Your task to perform on an android device: Search for sushi restaurants on Maps Image 0: 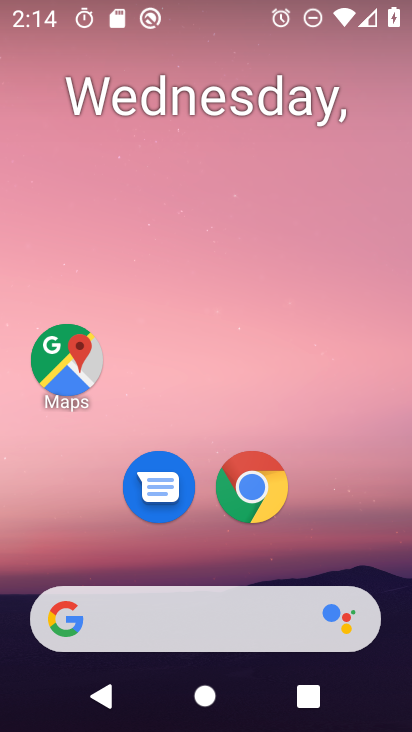
Step 0: click (62, 360)
Your task to perform on an android device: Search for sushi restaurants on Maps Image 1: 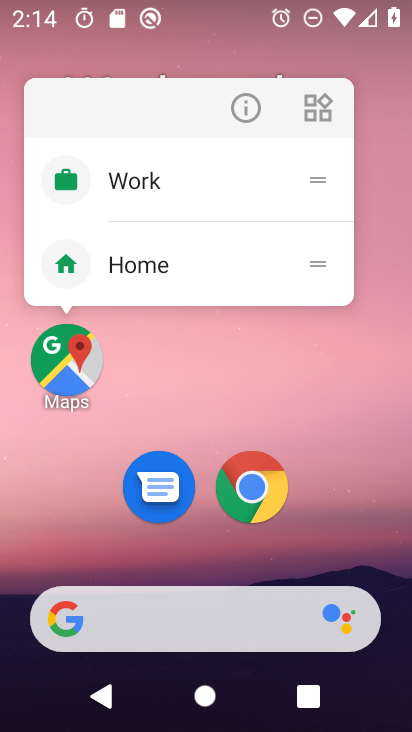
Step 1: click (65, 365)
Your task to perform on an android device: Search for sushi restaurants on Maps Image 2: 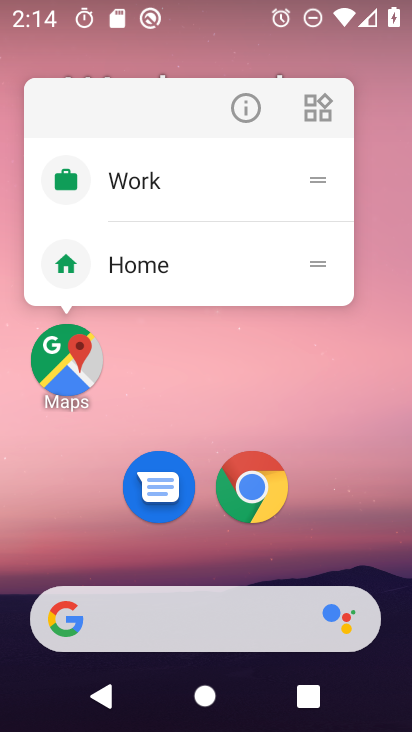
Step 2: click (58, 362)
Your task to perform on an android device: Search for sushi restaurants on Maps Image 3: 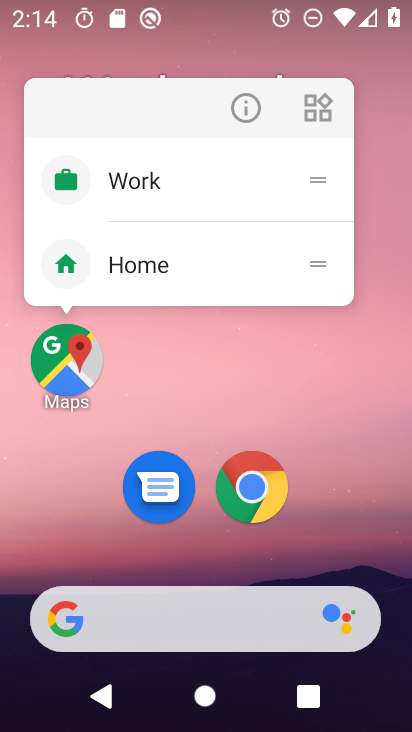
Step 3: click (71, 364)
Your task to perform on an android device: Search for sushi restaurants on Maps Image 4: 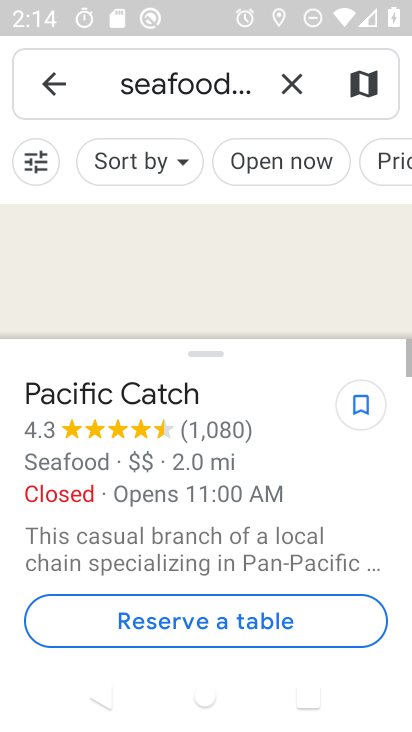
Step 4: click (293, 80)
Your task to perform on an android device: Search for sushi restaurants on Maps Image 5: 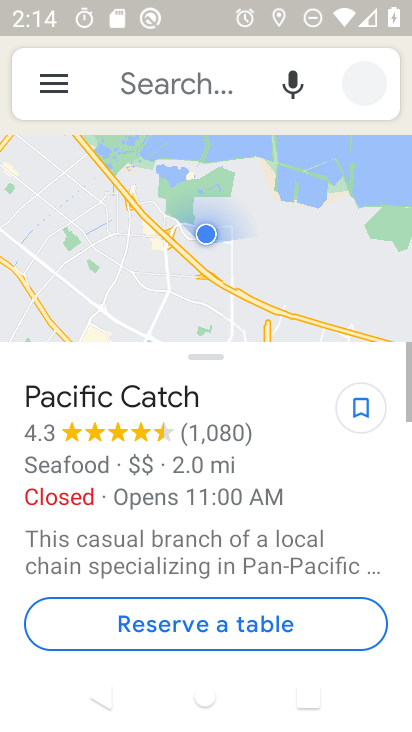
Step 5: click (175, 83)
Your task to perform on an android device: Search for sushi restaurants on Maps Image 6: 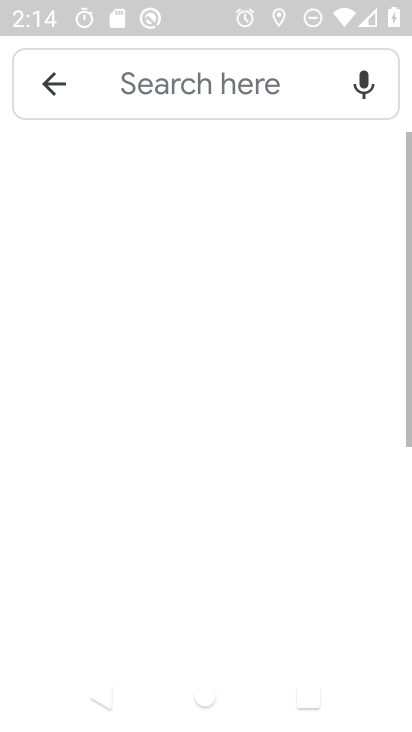
Step 6: click (175, 83)
Your task to perform on an android device: Search for sushi restaurants on Maps Image 7: 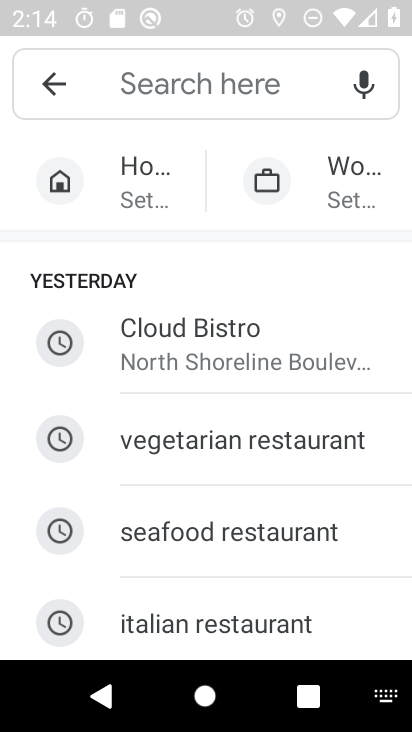
Step 7: drag from (222, 604) to (282, 144)
Your task to perform on an android device: Search for sushi restaurants on Maps Image 8: 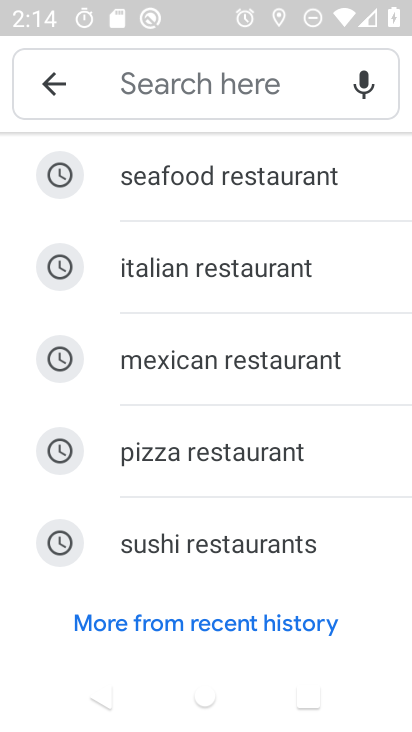
Step 8: click (188, 559)
Your task to perform on an android device: Search for sushi restaurants on Maps Image 9: 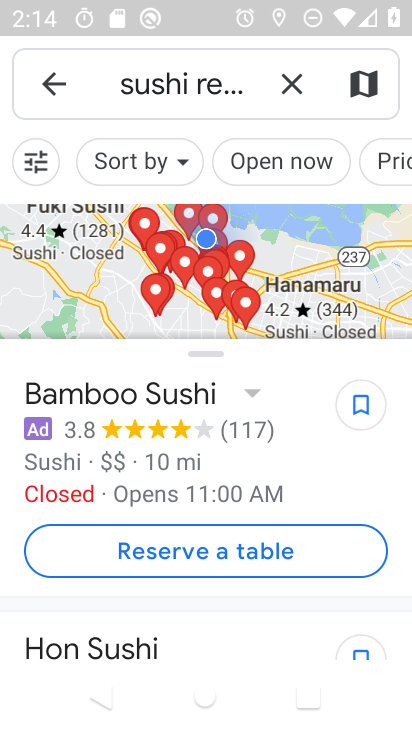
Step 9: task complete